Your task to perform on an android device: see tabs open on other devices in the chrome app Image 0: 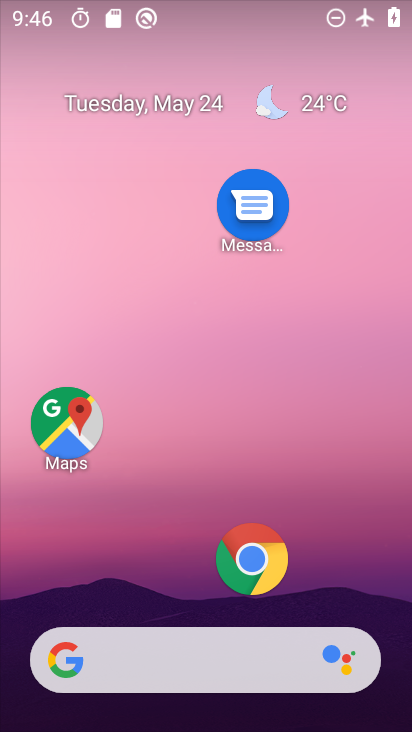
Step 0: click (255, 540)
Your task to perform on an android device: see tabs open on other devices in the chrome app Image 1: 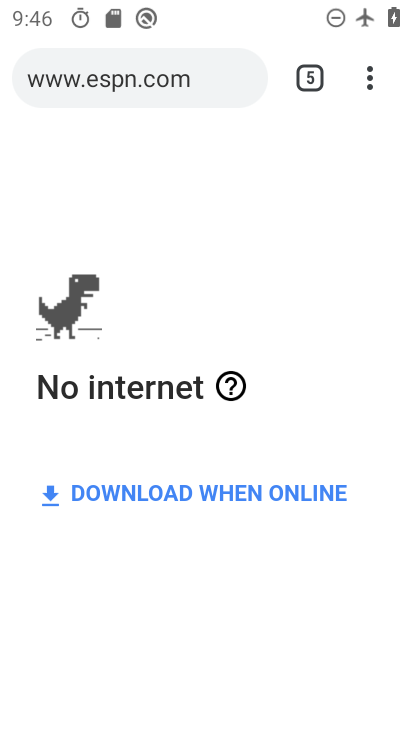
Step 1: task complete